Your task to perform on an android device: View the shopping cart on newegg. Search for sony triple a on newegg, select the first entry, add it to the cart, then select checkout. Image 0: 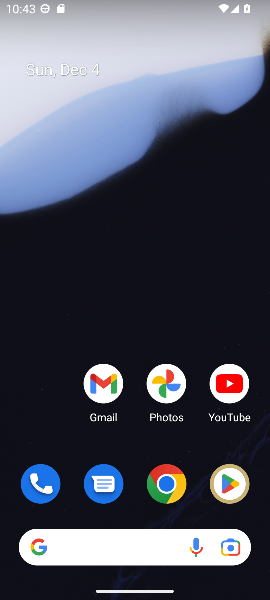
Step 0: click (170, 488)
Your task to perform on an android device: View the shopping cart on newegg. Search for sony triple a on newegg, select the first entry, add it to the cart, then select checkout. Image 1: 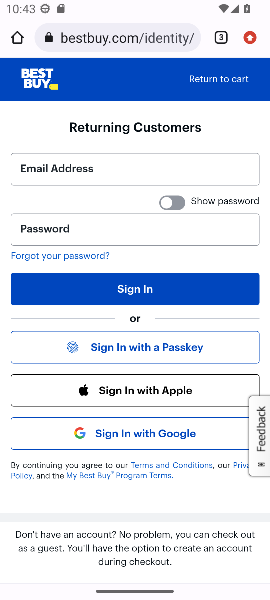
Step 1: click (109, 45)
Your task to perform on an android device: View the shopping cart on newegg. Search for sony triple a on newegg, select the first entry, add it to the cart, then select checkout. Image 2: 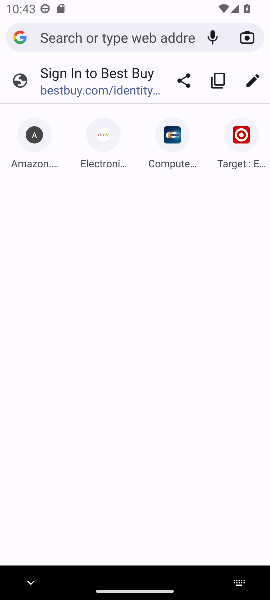
Step 2: click (169, 167)
Your task to perform on an android device: View the shopping cart on newegg. Search for sony triple a on newegg, select the first entry, add it to the cart, then select checkout. Image 3: 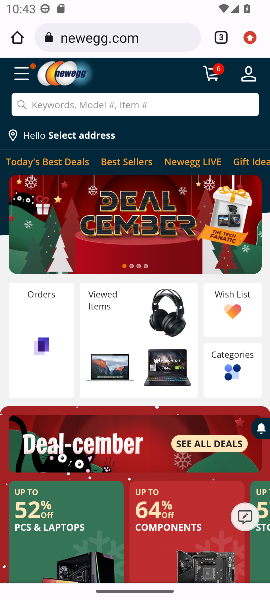
Step 3: click (212, 77)
Your task to perform on an android device: View the shopping cart on newegg. Search for sony triple a on newegg, select the first entry, add it to the cart, then select checkout. Image 4: 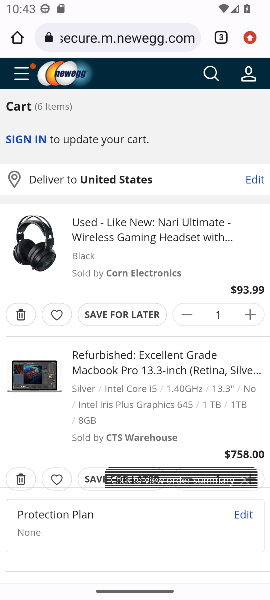
Step 4: click (211, 67)
Your task to perform on an android device: View the shopping cart on newegg. Search for sony triple a on newegg, select the first entry, add it to the cart, then select checkout. Image 5: 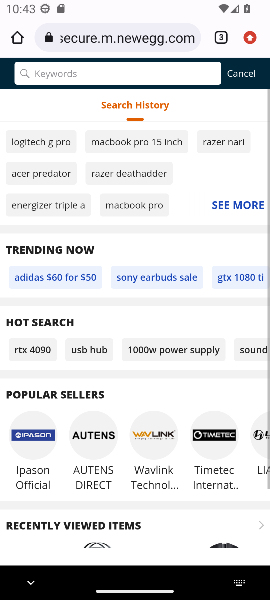
Step 5: type "sony triple a "
Your task to perform on an android device: View the shopping cart on newegg. Search for sony triple a on newegg, select the first entry, add it to the cart, then select checkout. Image 6: 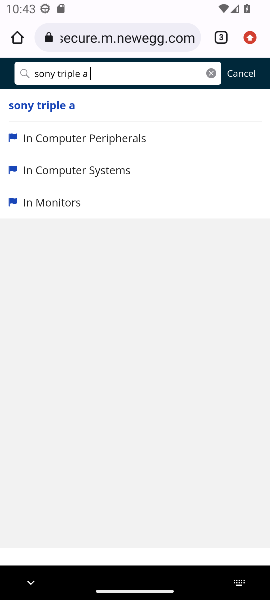
Step 6: click (40, 114)
Your task to perform on an android device: View the shopping cart on newegg. Search for sony triple a on newegg, select the first entry, add it to the cart, then select checkout. Image 7: 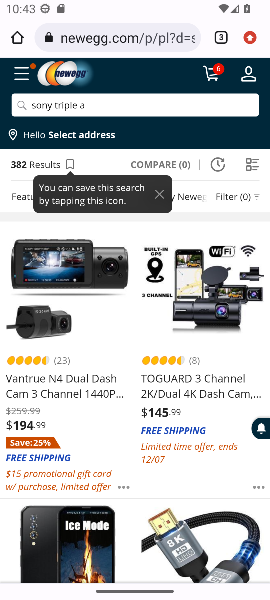
Step 7: task complete